Your task to perform on an android device: Open Yahoo.com Image 0: 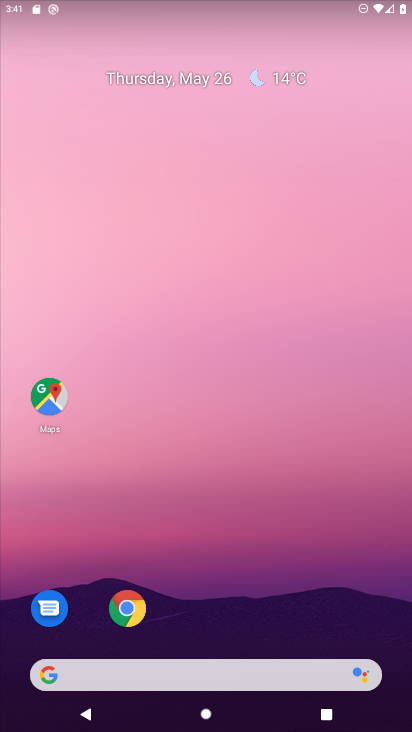
Step 0: drag from (295, 496) to (249, 33)
Your task to perform on an android device: Open Yahoo.com Image 1: 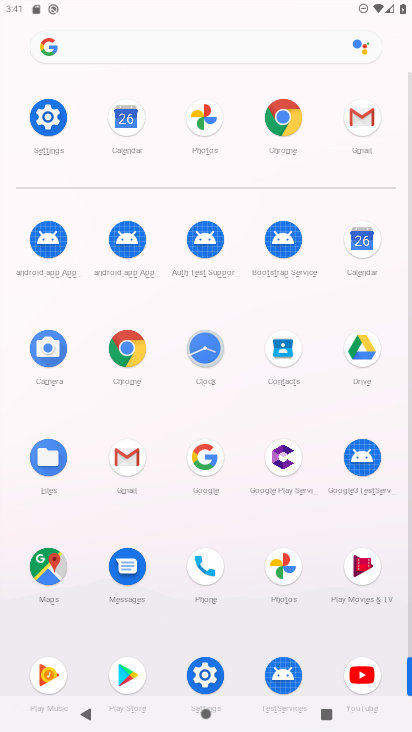
Step 1: click (286, 126)
Your task to perform on an android device: Open Yahoo.com Image 2: 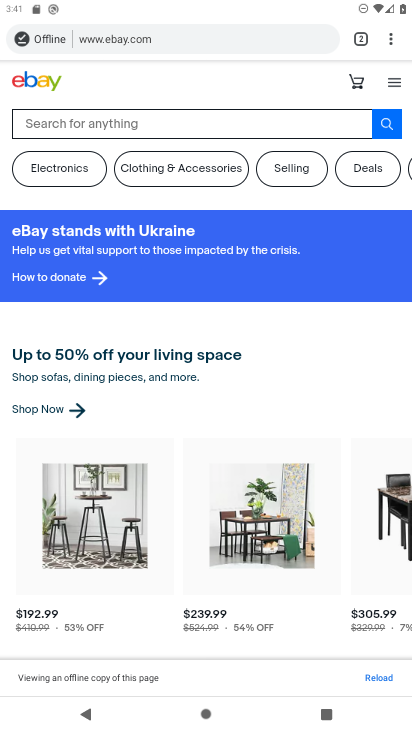
Step 2: click (179, 41)
Your task to perform on an android device: Open Yahoo.com Image 3: 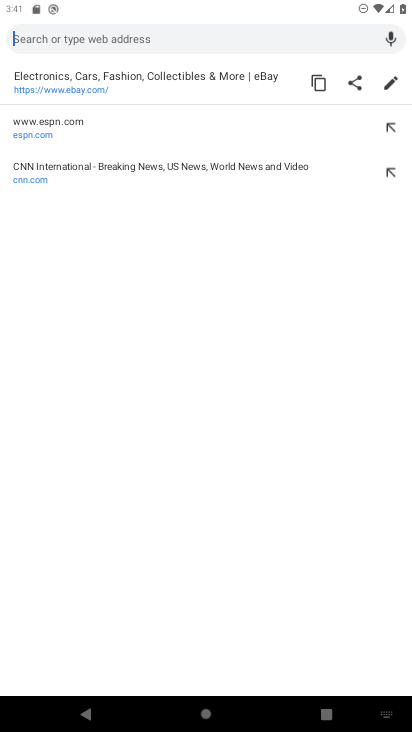
Step 3: type "yahoo"
Your task to perform on an android device: Open Yahoo.com Image 4: 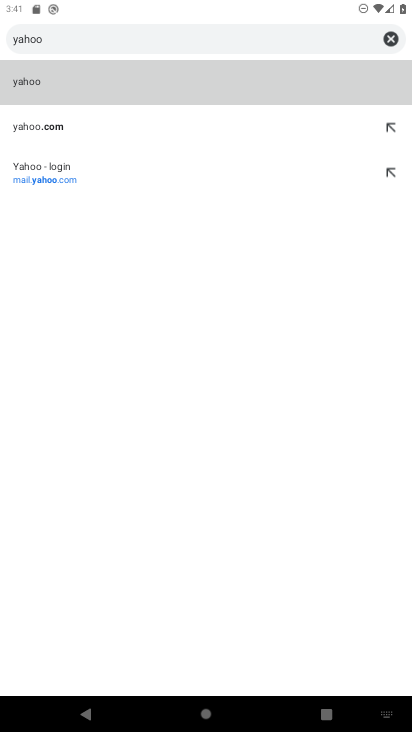
Step 4: click (41, 135)
Your task to perform on an android device: Open Yahoo.com Image 5: 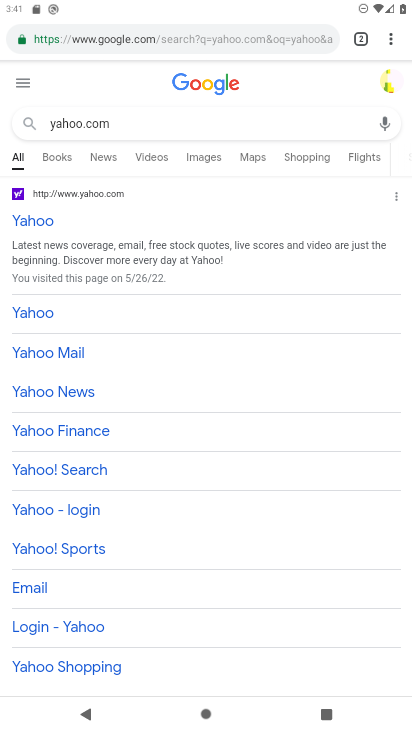
Step 5: click (43, 230)
Your task to perform on an android device: Open Yahoo.com Image 6: 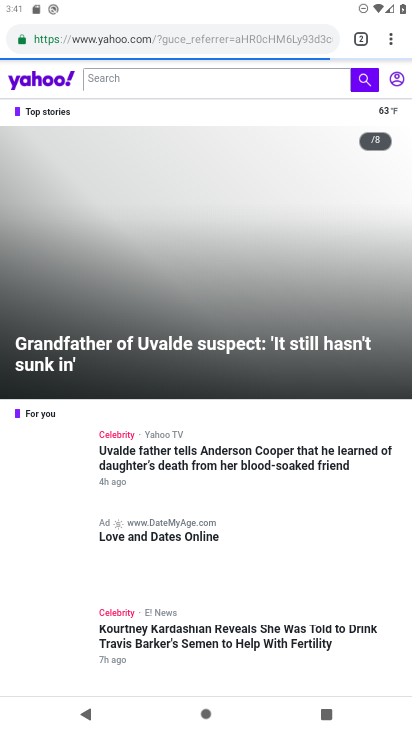
Step 6: task complete